Your task to perform on an android device: Do I have any events today? Image 0: 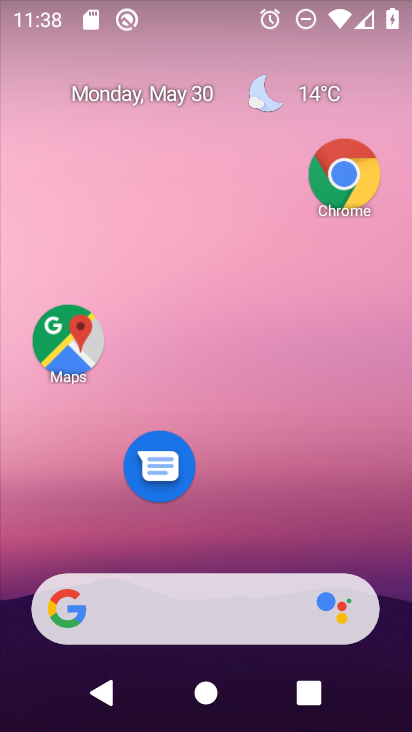
Step 0: drag from (295, 313) to (301, 5)
Your task to perform on an android device: Do I have any events today? Image 1: 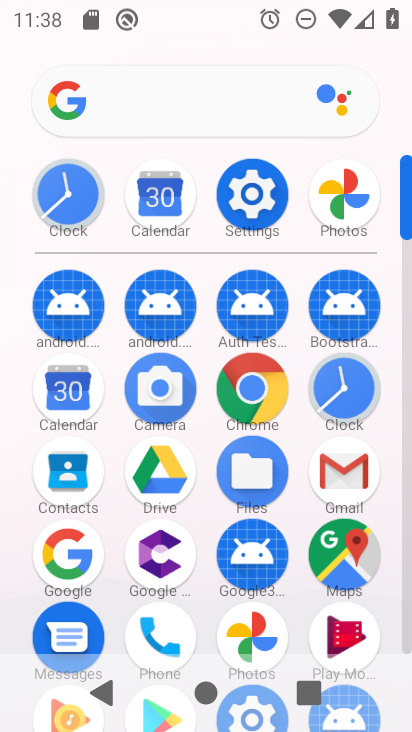
Step 1: click (60, 394)
Your task to perform on an android device: Do I have any events today? Image 2: 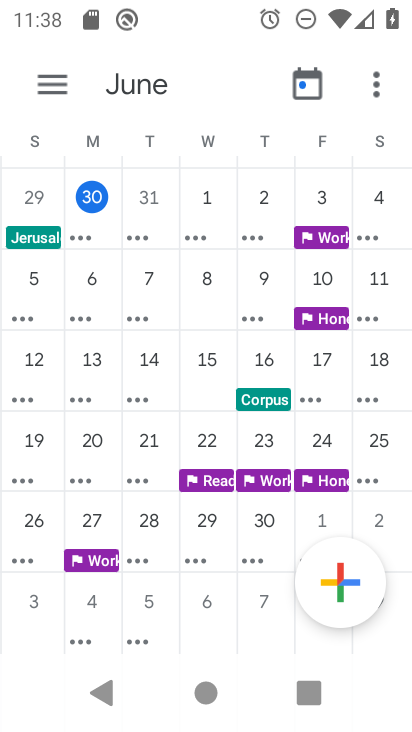
Step 2: click (154, 185)
Your task to perform on an android device: Do I have any events today? Image 3: 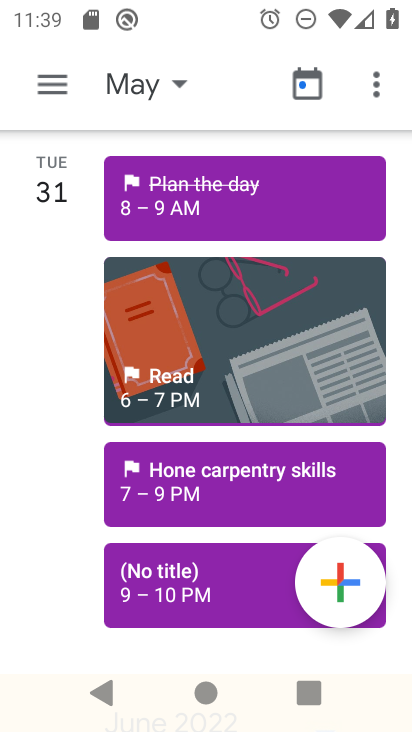
Step 3: task complete